Your task to perform on an android device: Go to accessibility settings Image 0: 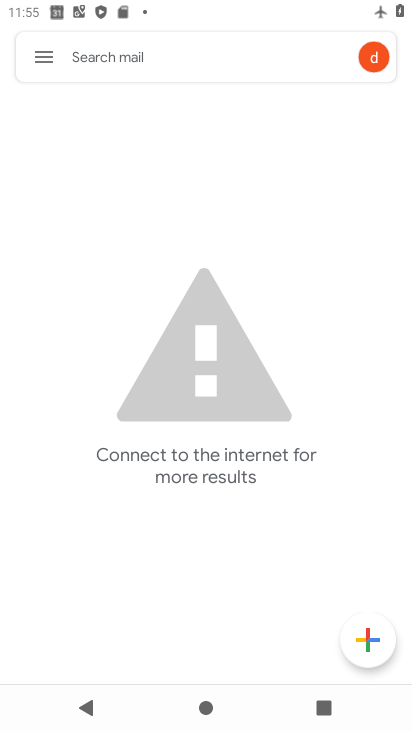
Step 0: press home button
Your task to perform on an android device: Go to accessibility settings Image 1: 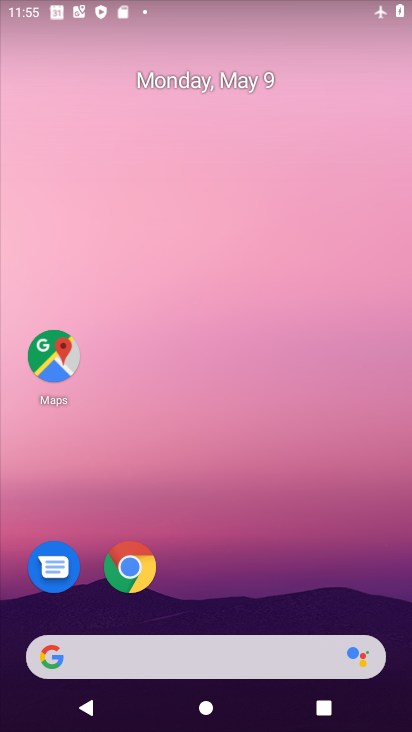
Step 1: drag from (355, 606) to (293, 2)
Your task to perform on an android device: Go to accessibility settings Image 2: 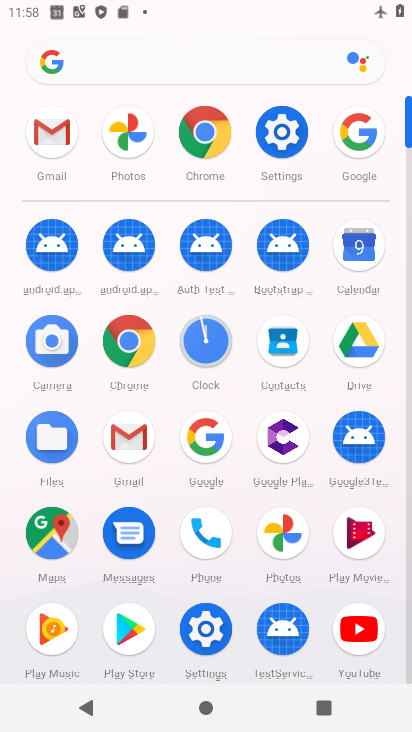
Step 2: click (188, 632)
Your task to perform on an android device: Go to accessibility settings Image 3: 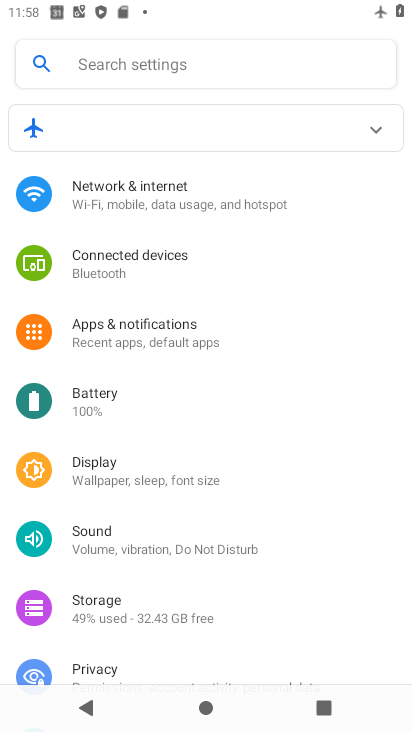
Step 3: drag from (173, 623) to (243, 120)
Your task to perform on an android device: Go to accessibility settings Image 4: 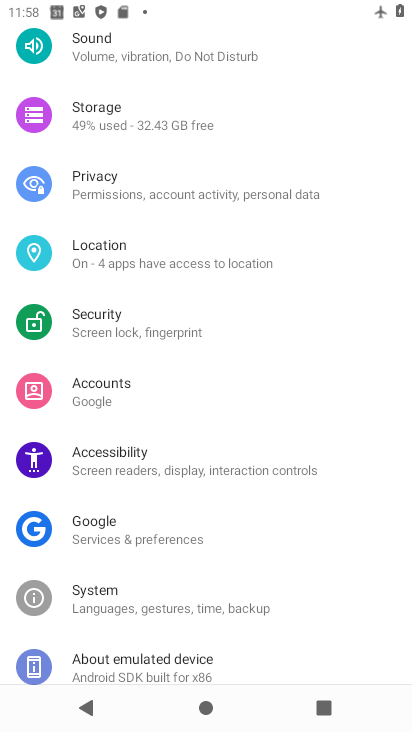
Step 4: click (113, 480)
Your task to perform on an android device: Go to accessibility settings Image 5: 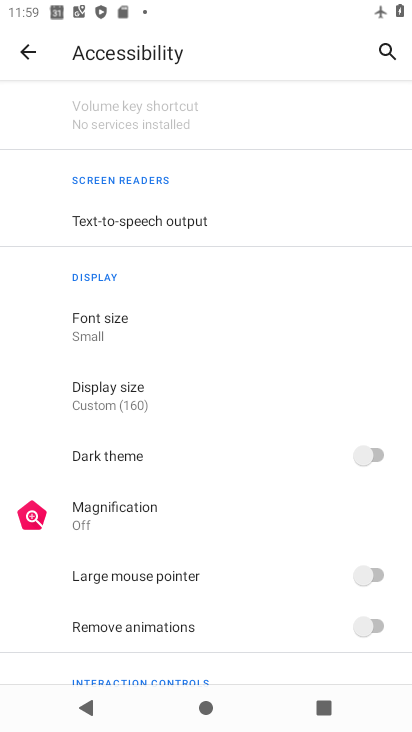
Step 5: task complete